Your task to perform on an android device: turn on translation in the chrome app Image 0: 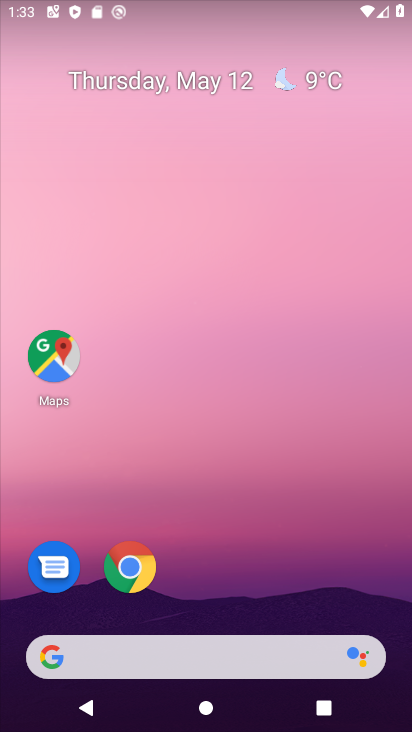
Step 0: click (135, 565)
Your task to perform on an android device: turn on translation in the chrome app Image 1: 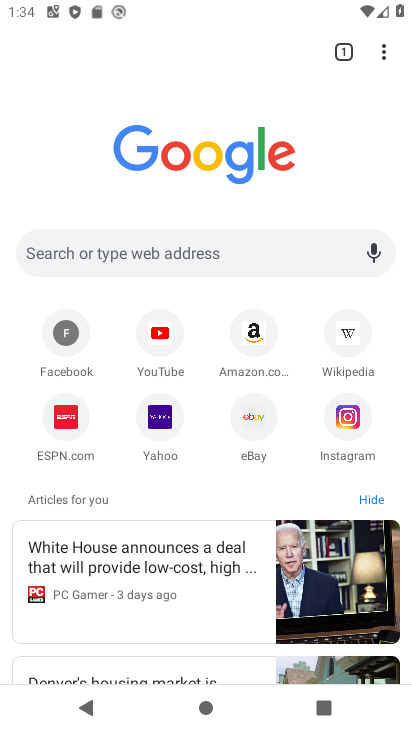
Step 1: click (378, 47)
Your task to perform on an android device: turn on translation in the chrome app Image 2: 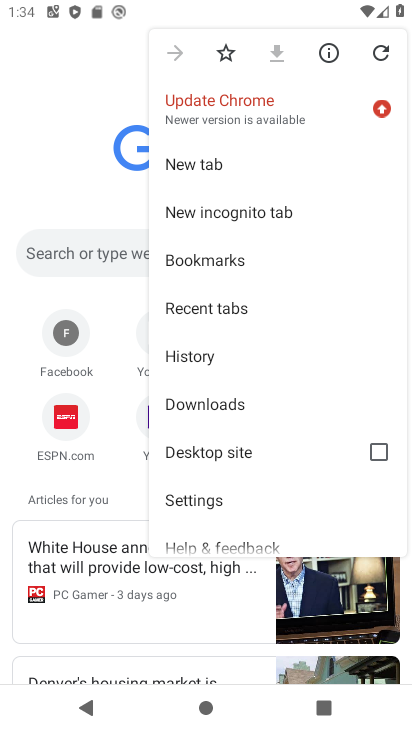
Step 2: click (229, 499)
Your task to perform on an android device: turn on translation in the chrome app Image 3: 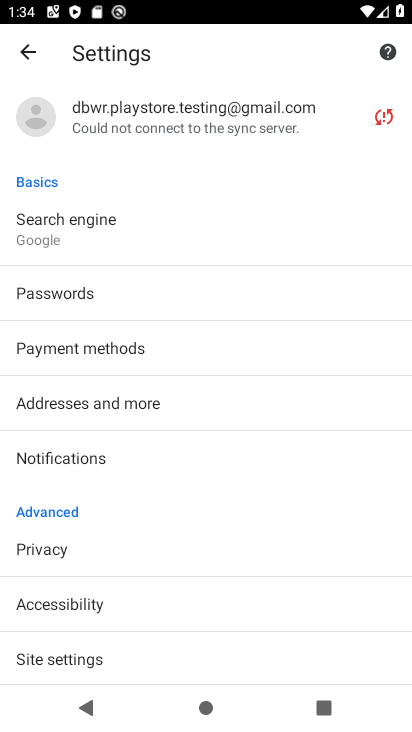
Step 3: drag from (134, 625) to (178, 257)
Your task to perform on an android device: turn on translation in the chrome app Image 4: 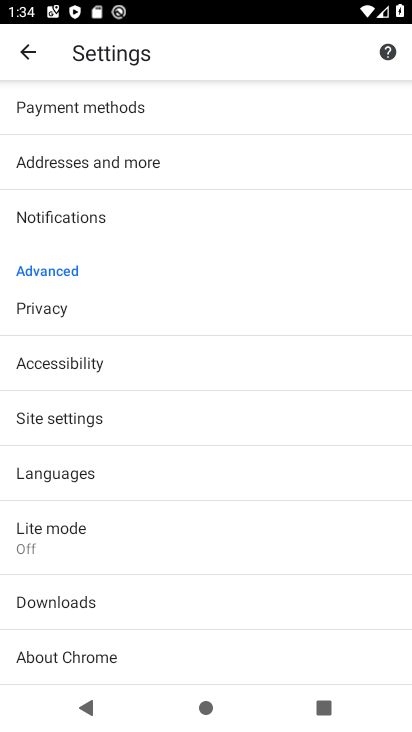
Step 4: click (105, 470)
Your task to perform on an android device: turn on translation in the chrome app Image 5: 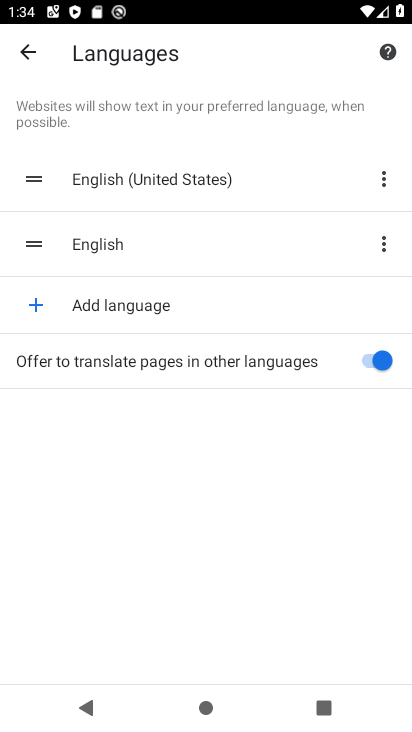
Step 5: task complete